Your task to perform on an android device: See recent photos Image 0: 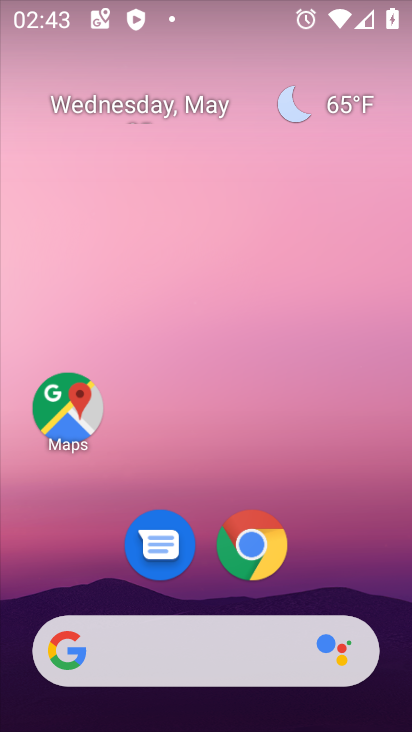
Step 0: click (196, 6)
Your task to perform on an android device: See recent photos Image 1: 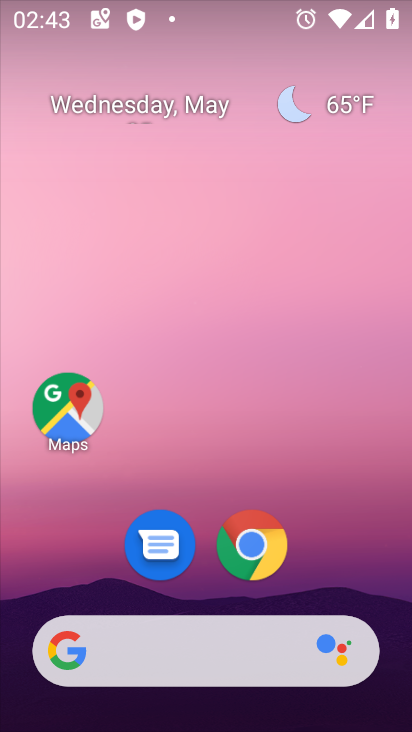
Step 1: drag from (338, 407) to (240, 21)
Your task to perform on an android device: See recent photos Image 2: 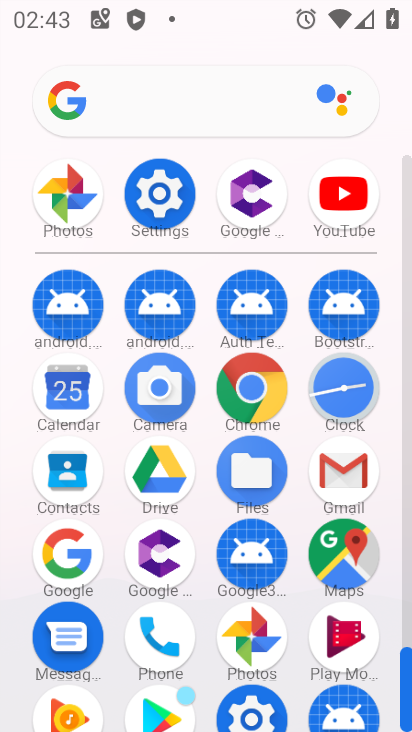
Step 2: click (267, 633)
Your task to perform on an android device: See recent photos Image 3: 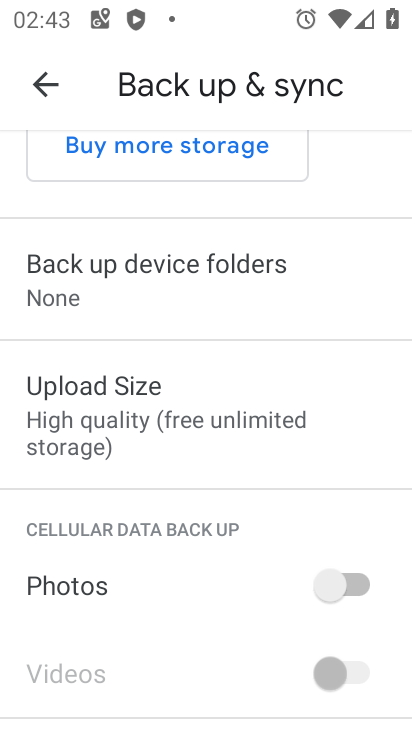
Step 3: click (45, 83)
Your task to perform on an android device: See recent photos Image 4: 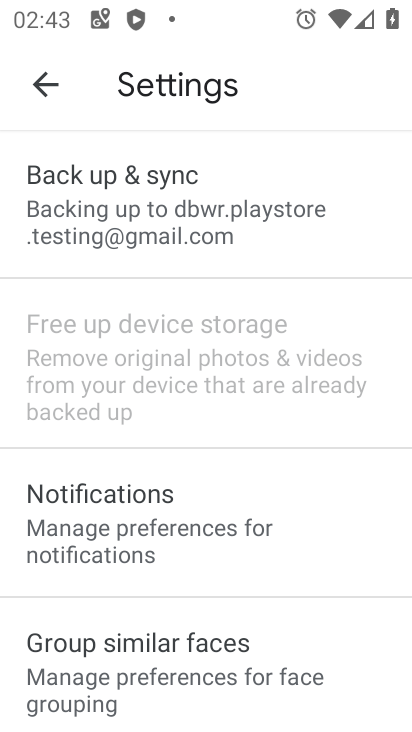
Step 4: click (52, 93)
Your task to perform on an android device: See recent photos Image 5: 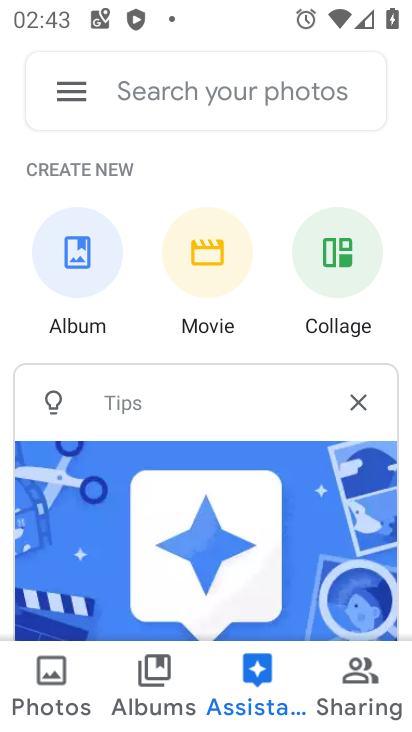
Step 5: click (56, 671)
Your task to perform on an android device: See recent photos Image 6: 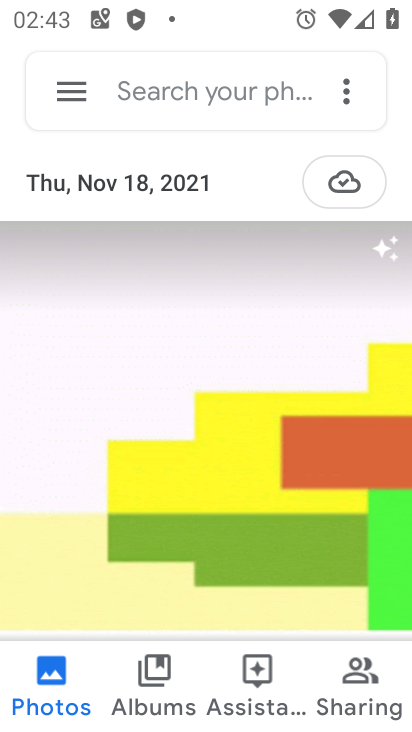
Step 6: task complete